Your task to perform on an android device: toggle wifi Image 0: 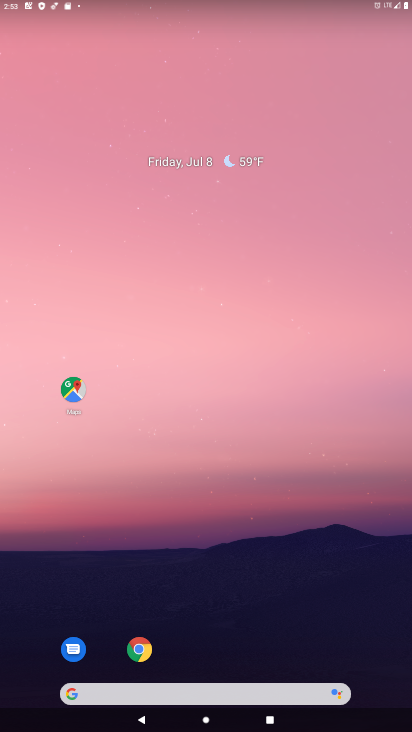
Step 0: drag from (224, 472) to (219, 52)
Your task to perform on an android device: toggle wifi Image 1: 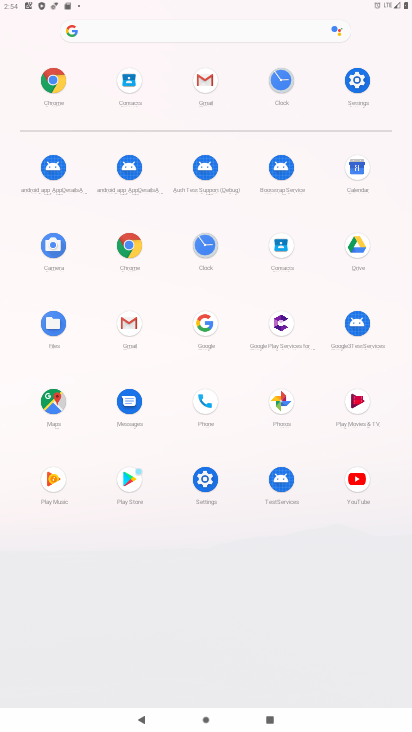
Step 1: click (358, 80)
Your task to perform on an android device: toggle wifi Image 2: 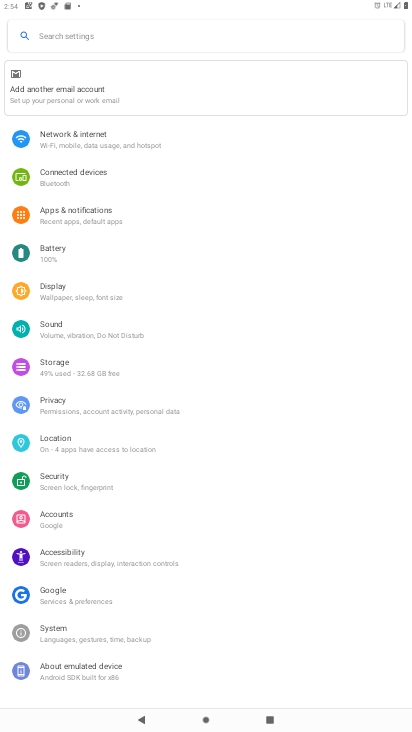
Step 2: click (81, 132)
Your task to perform on an android device: toggle wifi Image 3: 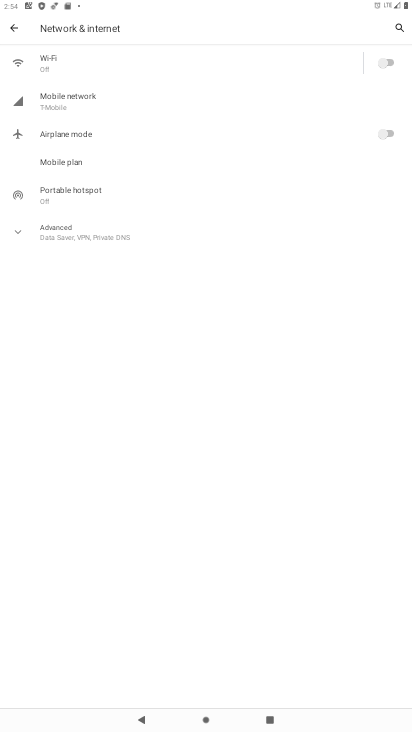
Step 3: click (387, 67)
Your task to perform on an android device: toggle wifi Image 4: 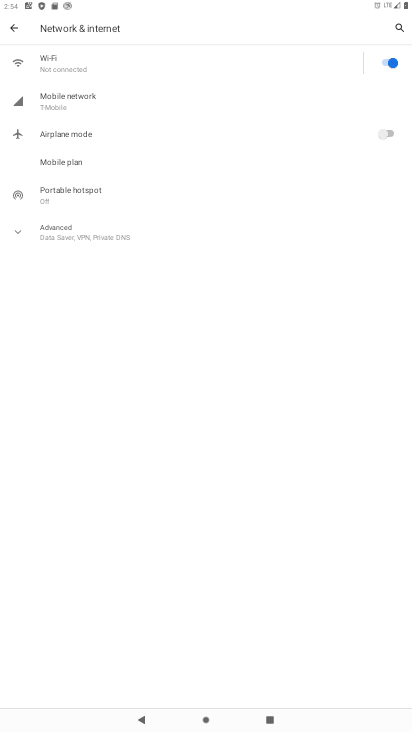
Step 4: task complete